Your task to perform on an android device: What's on my calendar today? Image 0: 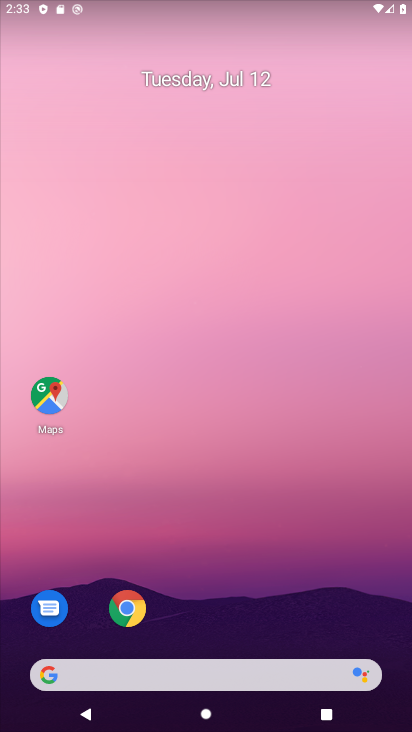
Step 0: drag from (337, 523) to (311, 21)
Your task to perform on an android device: What's on my calendar today? Image 1: 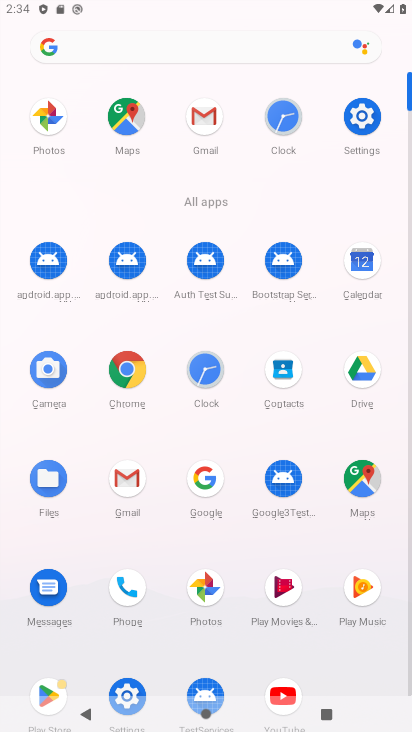
Step 1: click (361, 250)
Your task to perform on an android device: What's on my calendar today? Image 2: 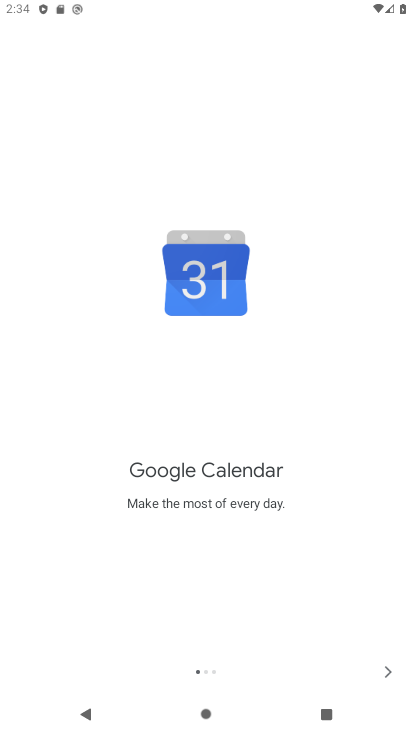
Step 2: click (384, 670)
Your task to perform on an android device: What's on my calendar today? Image 3: 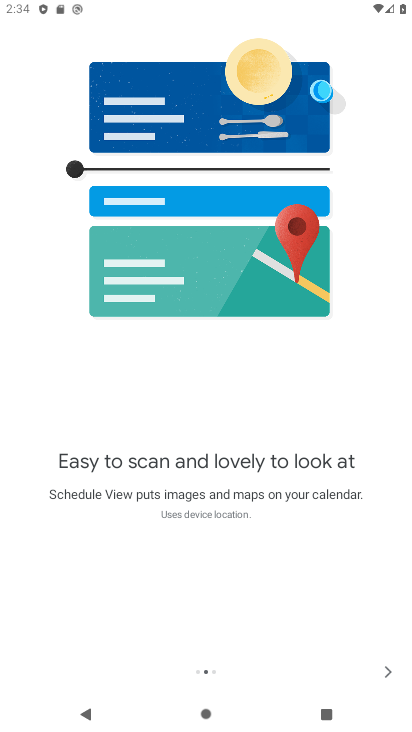
Step 3: click (386, 671)
Your task to perform on an android device: What's on my calendar today? Image 4: 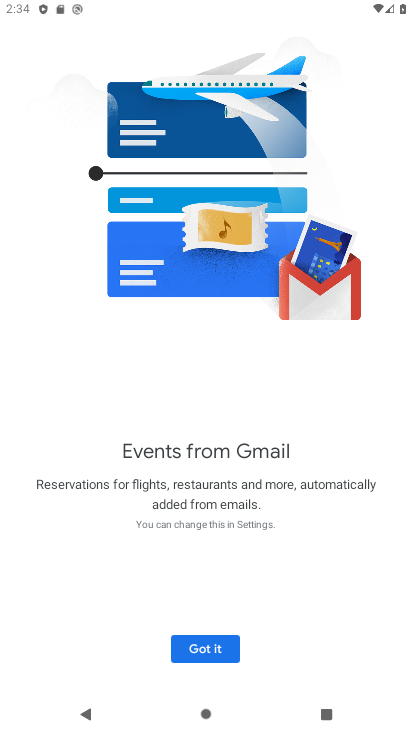
Step 4: click (221, 652)
Your task to perform on an android device: What's on my calendar today? Image 5: 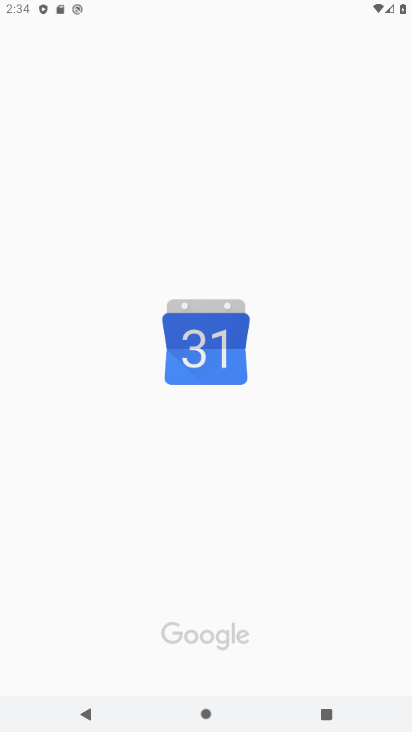
Step 5: click (221, 652)
Your task to perform on an android device: What's on my calendar today? Image 6: 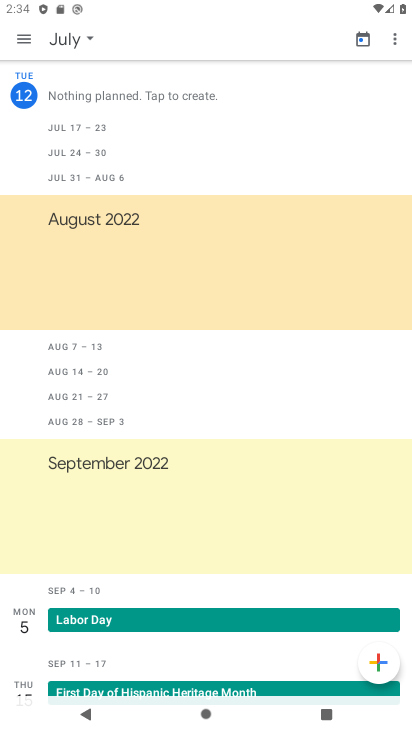
Step 6: click (74, 43)
Your task to perform on an android device: What's on my calendar today? Image 7: 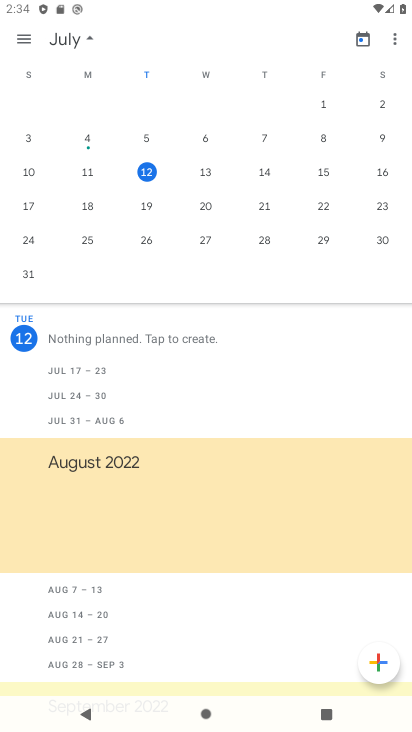
Step 7: click (148, 166)
Your task to perform on an android device: What's on my calendar today? Image 8: 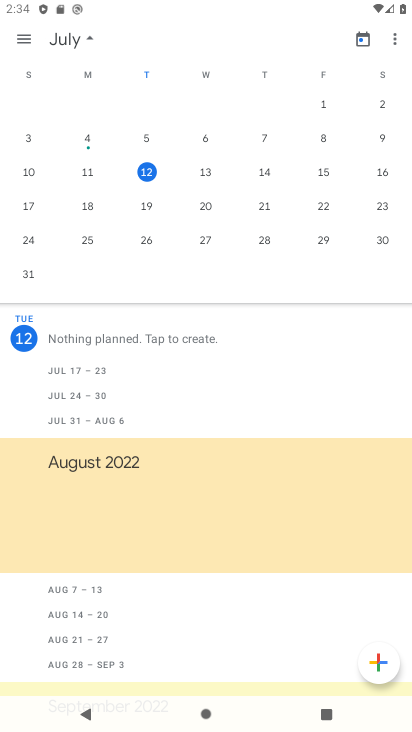
Step 8: task complete